Your task to perform on an android device: Play the last video I watched on Youtube Image 0: 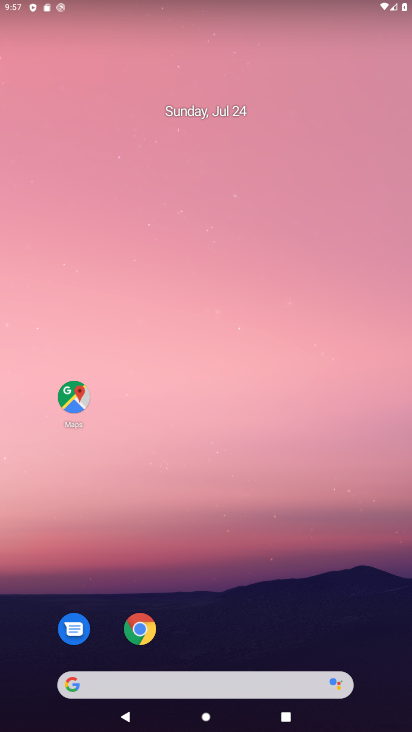
Step 0: drag from (195, 679) to (270, 114)
Your task to perform on an android device: Play the last video I watched on Youtube Image 1: 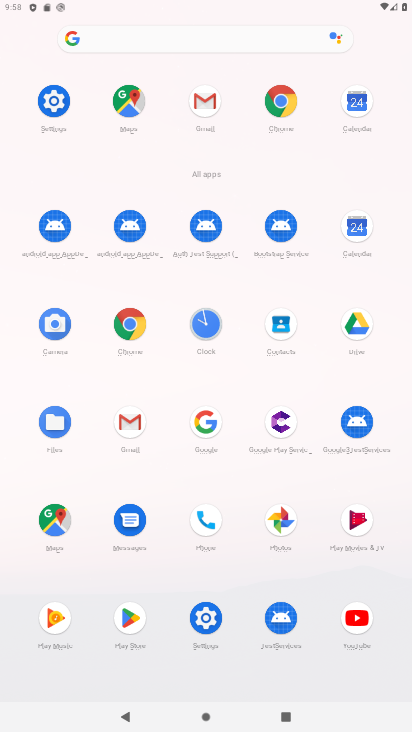
Step 1: click (357, 616)
Your task to perform on an android device: Play the last video I watched on Youtube Image 2: 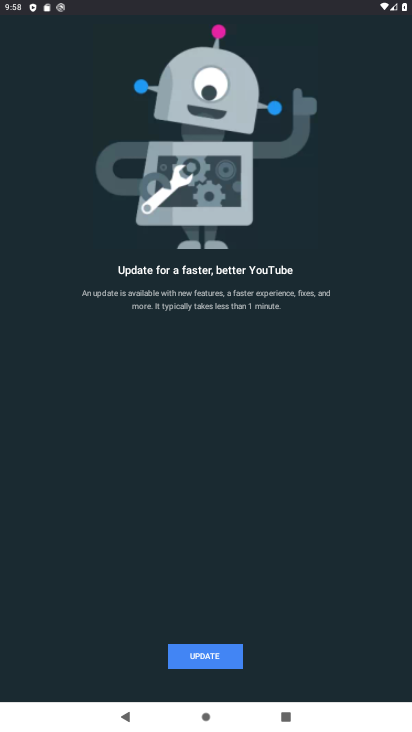
Step 2: click (207, 659)
Your task to perform on an android device: Play the last video I watched on Youtube Image 3: 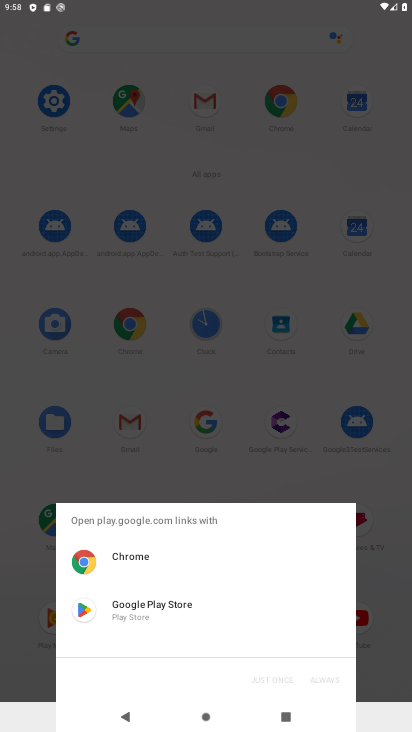
Step 3: click (176, 604)
Your task to perform on an android device: Play the last video I watched on Youtube Image 4: 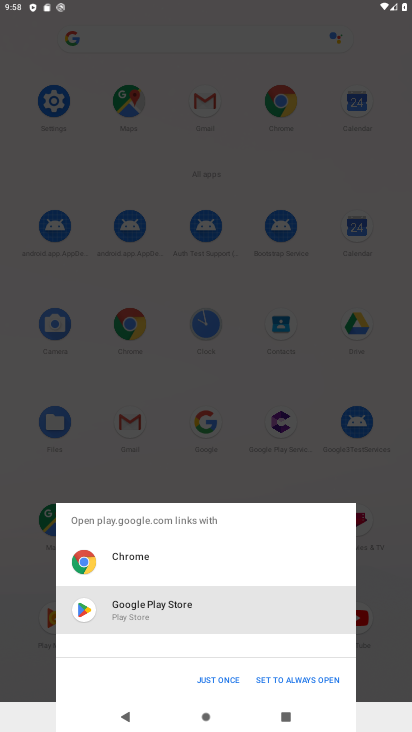
Step 4: click (214, 677)
Your task to perform on an android device: Play the last video I watched on Youtube Image 5: 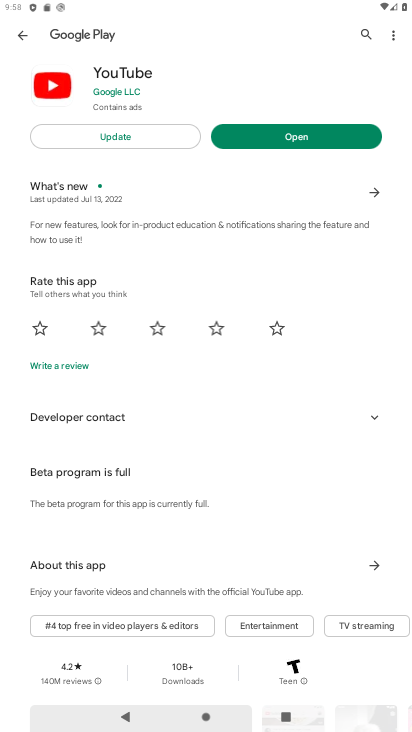
Step 5: click (127, 137)
Your task to perform on an android device: Play the last video I watched on Youtube Image 6: 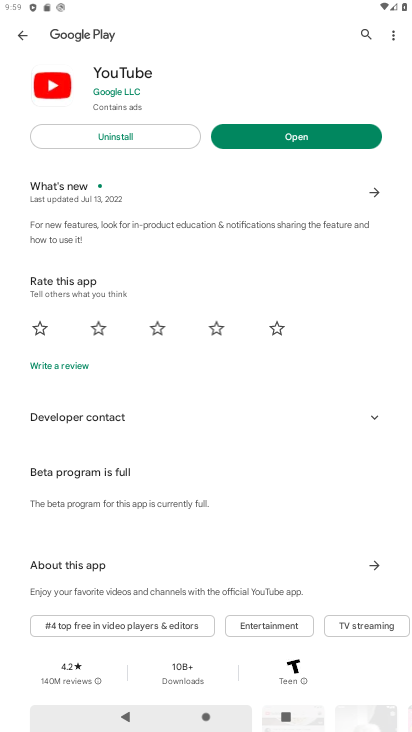
Step 6: click (292, 138)
Your task to perform on an android device: Play the last video I watched on Youtube Image 7: 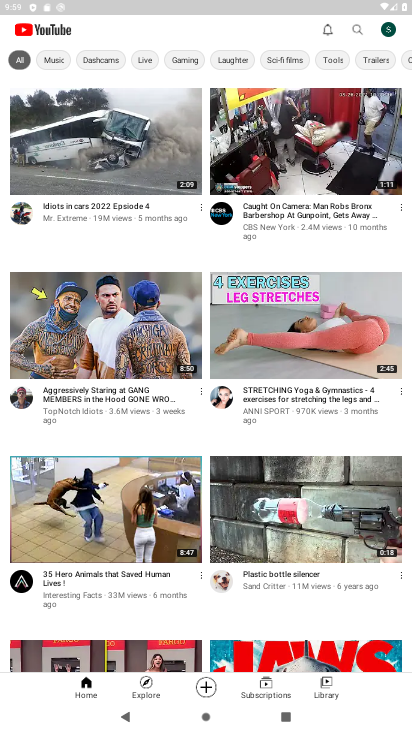
Step 7: click (329, 681)
Your task to perform on an android device: Play the last video I watched on Youtube Image 8: 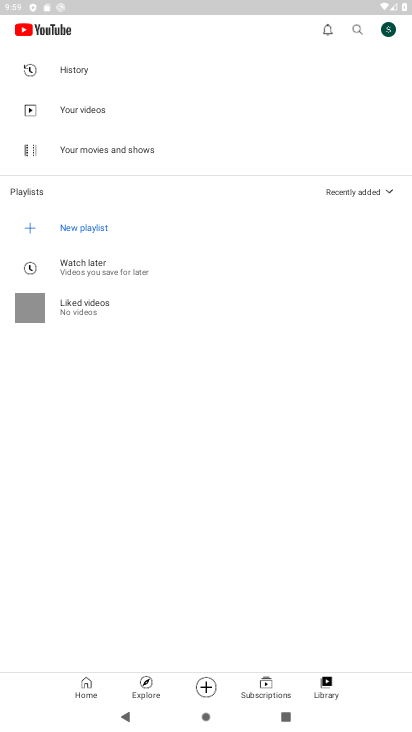
Step 8: click (80, 73)
Your task to perform on an android device: Play the last video I watched on Youtube Image 9: 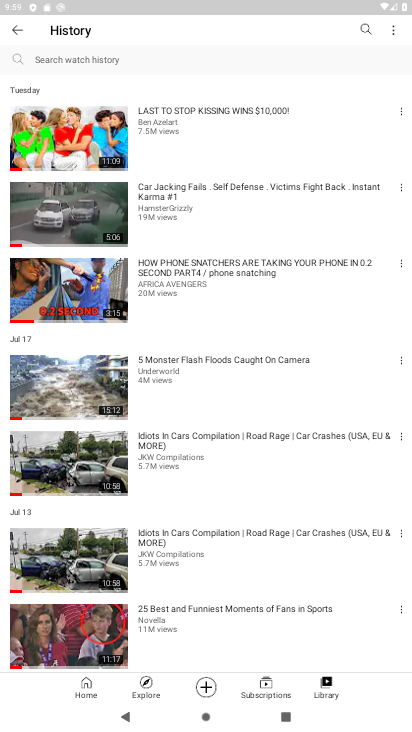
Step 9: click (75, 140)
Your task to perform on an android device: Play the last video I watched on Youtube Image 10: 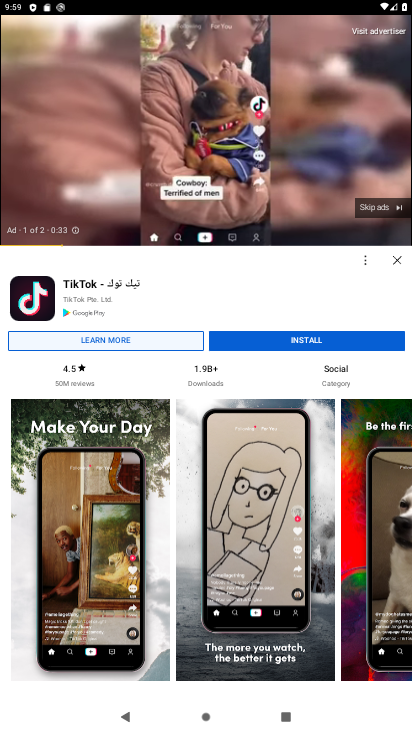
Step 10: click (398, 210)
Your task to perform on an android device: Play the last video I watched on Youtube Image 11: 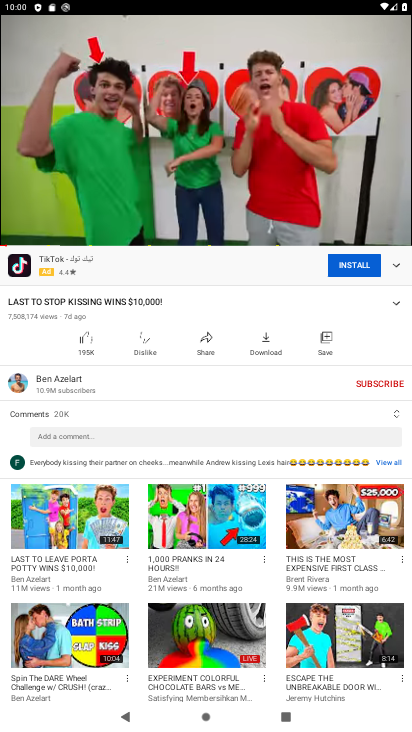
Step 11: click (199, 125)
Your task to perform on an android device: Play the last video I watched on Youtube Image 12: 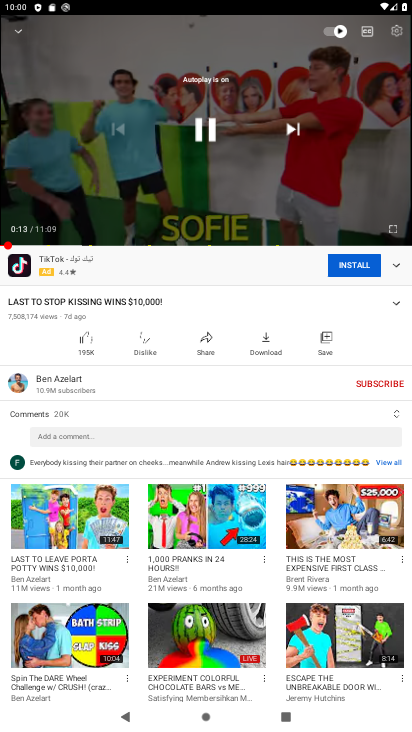
Step 12: click (199, 125)
Your task to perform on an android device: Play the last video I watched on Youtube Image 13: 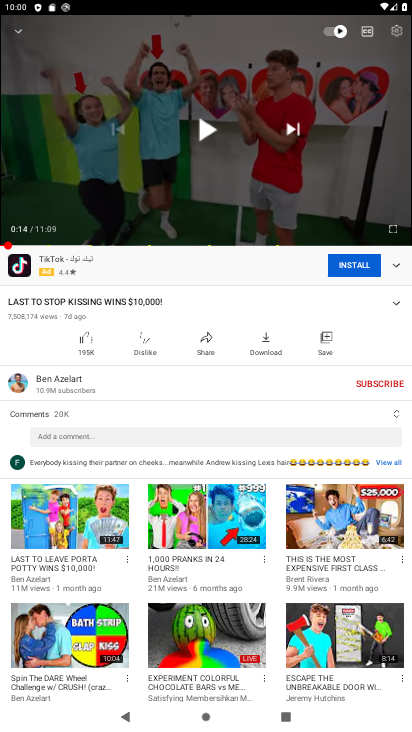
Step 13: task complete